Your task to perform on an android device: Go to accessibility settings Image 0: 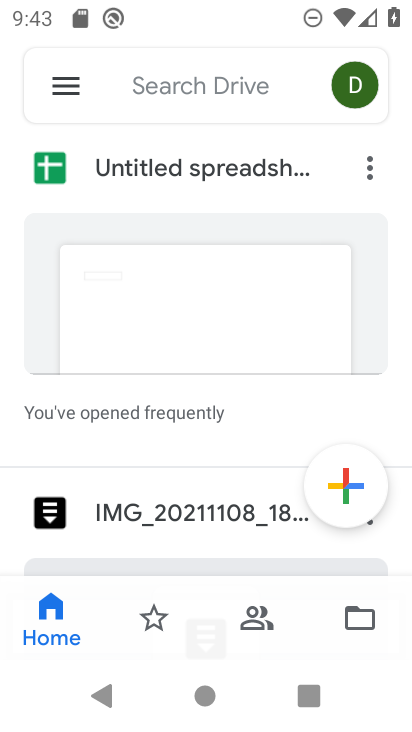
Step 0: press home button
Your task to perform on an android device: Go to accessibility settings Image 1: 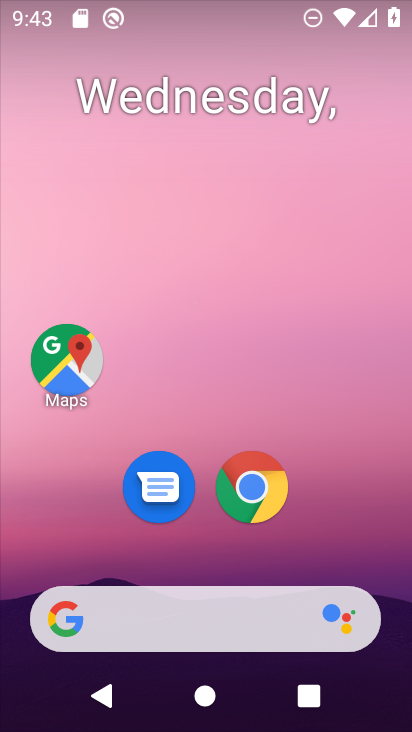
Step 1: drag from (231, 668) to (281, 173)
Your task to perform on an android device: Go to accessibility settings Image 2: 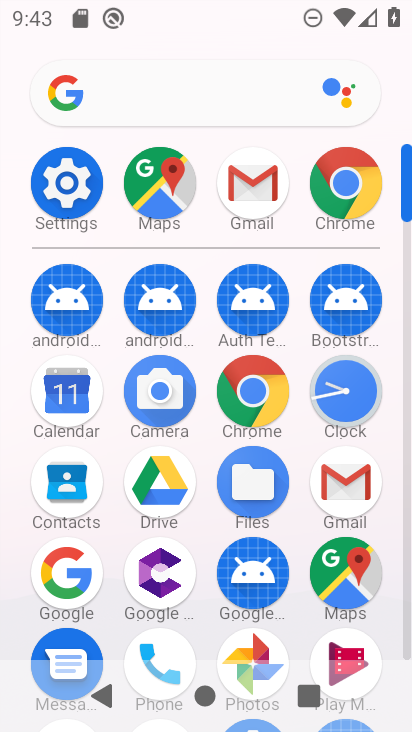
Step 2: click (62, 161)
Your task to perform on an android device: Go to accessibility settings Image 3: 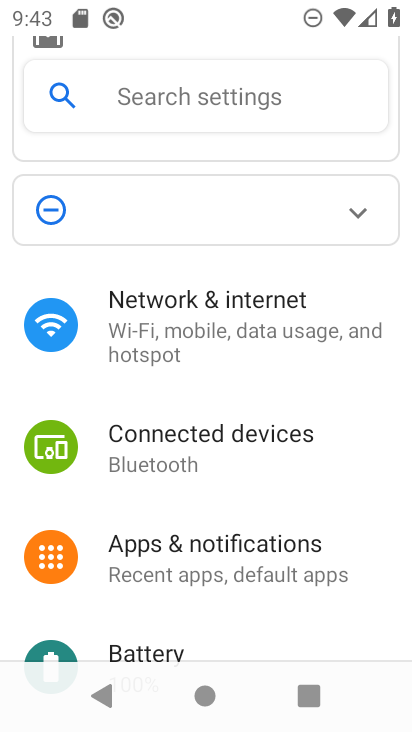
Step 3: click (132, 94)
Your task to perform on an android device: Go to accessibility settings Image 4: 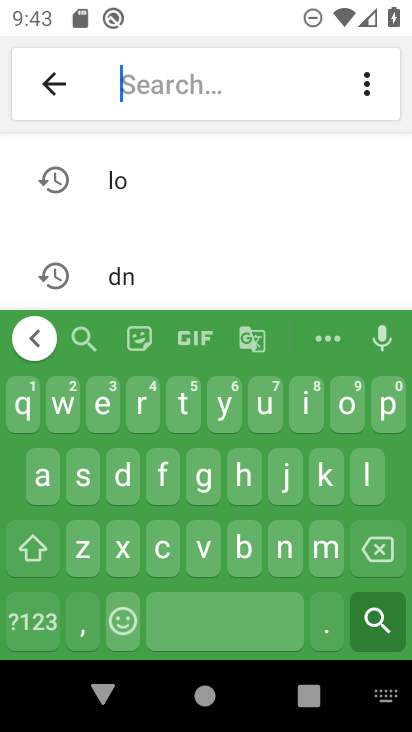
Step 4: click (41, 483)
Your task to perform on an android device: Go to accessibility settings Image 5: 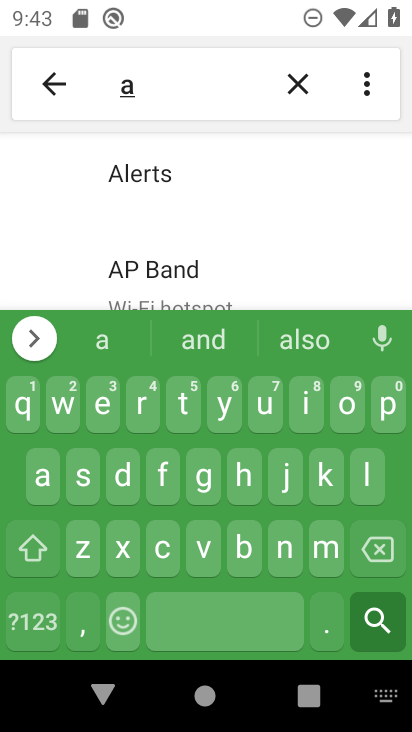
Step 5: click (161, 551)
Your task to perform on an android device: Go to accessibility settings Image 6: 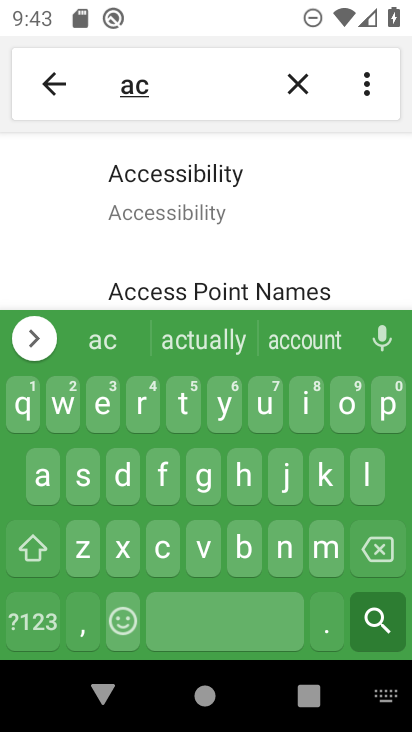
Step 6: click (161, 551)
Your task to perform on an android device: Go to accessibility settings Image 7: 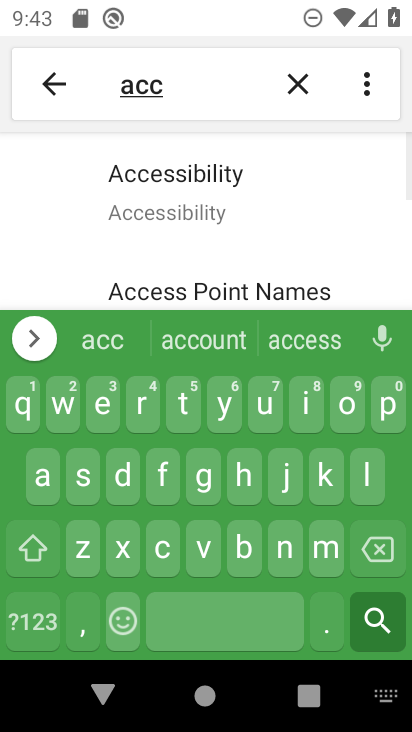
Step 7: click (238, 202)
Your task to perform on an android device: Go to accessibility settings Image 8: 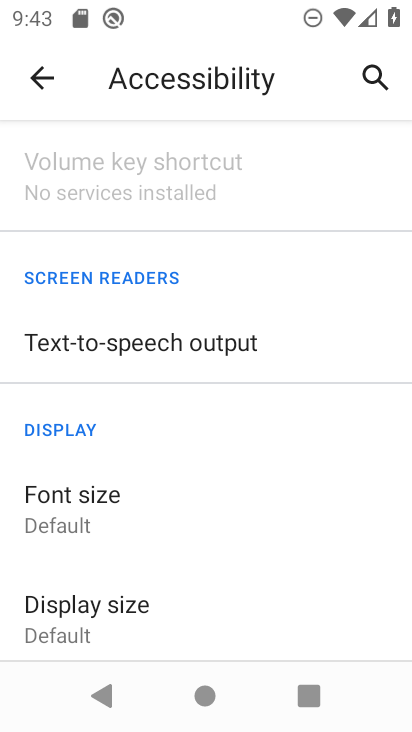
Step 8: task complete